Your task to perform on an android device: Go to display settings Image 0: 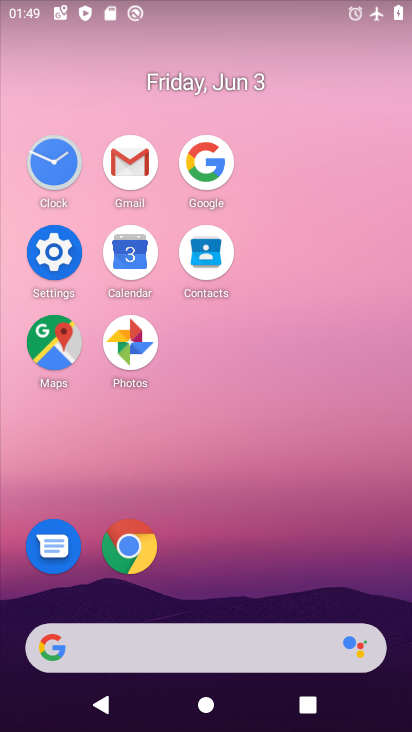
Step 0: click (60, 237)
Your task to perform on an android device: Go to display settings Image 1: 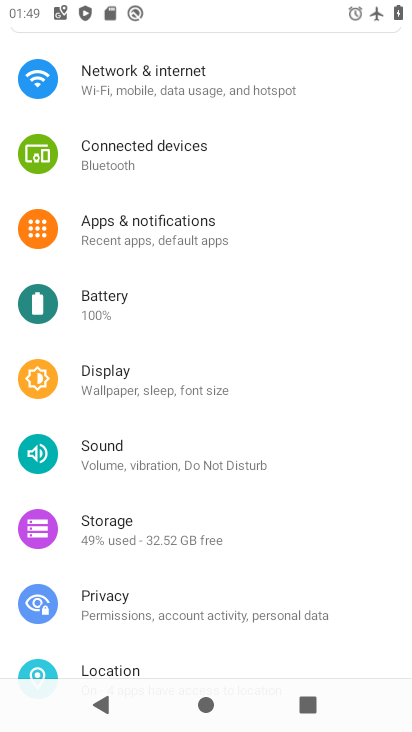
Step 1: click (157, 398)
Your task to perform on an android device: Go to display settings Image 2: 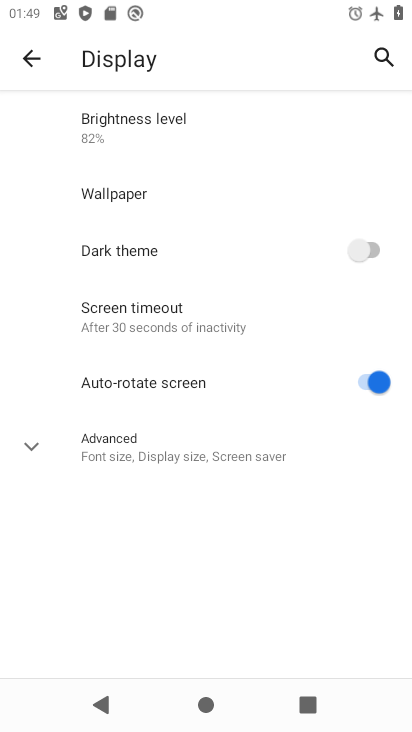
Step 2: task complete